Your task to perform on an android device: Open ESPN.com Image 0: 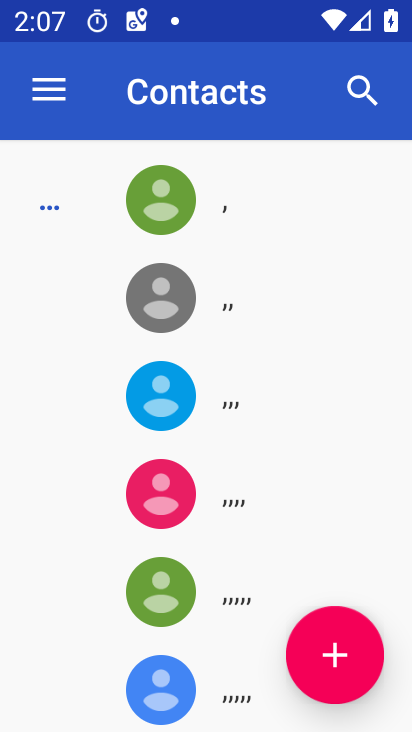
Step 0: press home button
Your task to perform on an android device: Open ESPN.com Image 1: 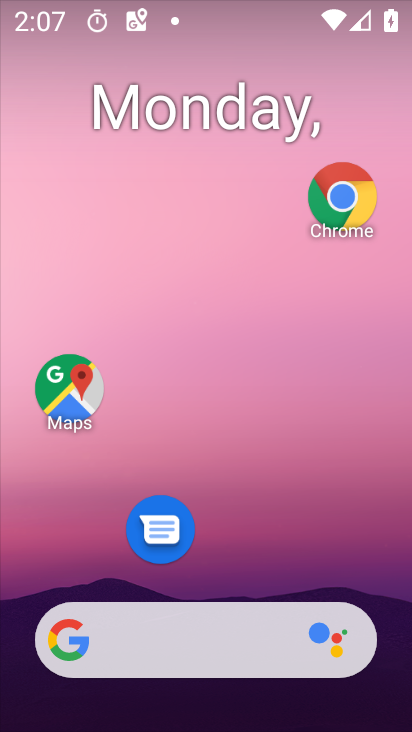
Step 1: click (357, 191)
Your task to perform on an android device: Open ESPN.com Image 2: 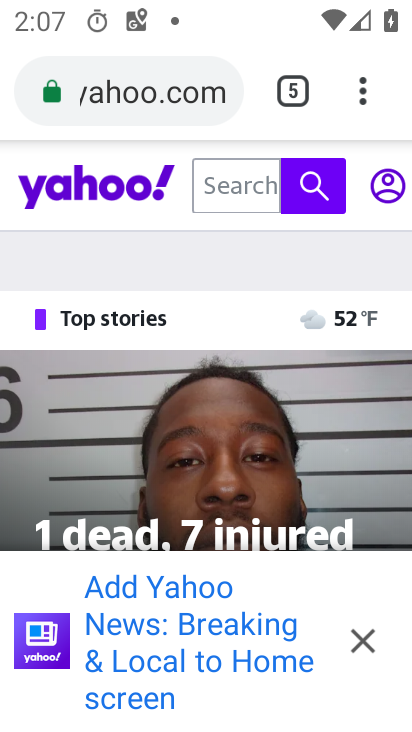
Step 2: click (296, 90)
Your task to perform on an android device: Open ESPN.com Image 3: 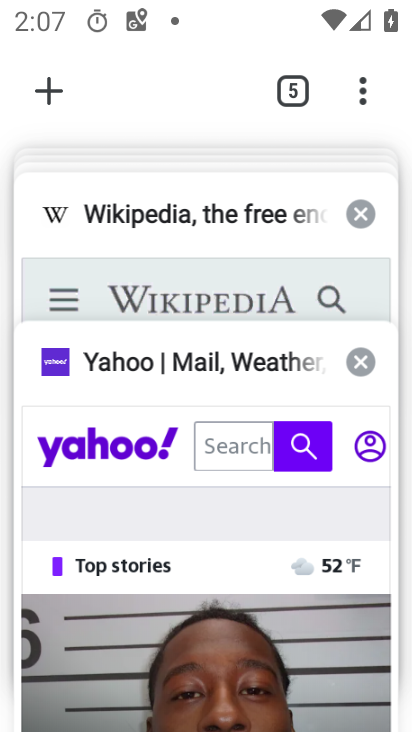
Step 3: click (61, 87)
Your task to perform on an android device: Open ESPN.com Image 4: 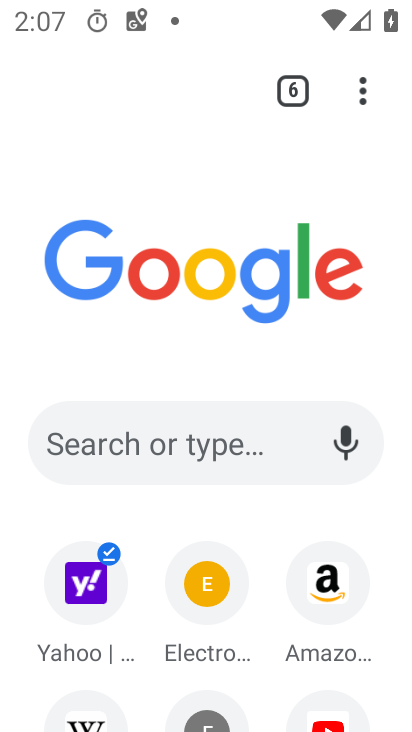
Step 4: drag from (230, 720) to (206, 320)
Your task to perform on an android device: Open ESPN.com Image 5: 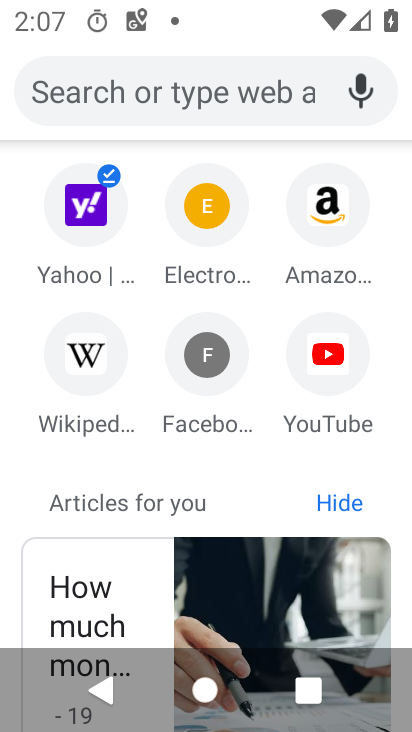
Step 5: click (174, 97)
Your task to perform on an android device: Open ESPN.com Image 6: 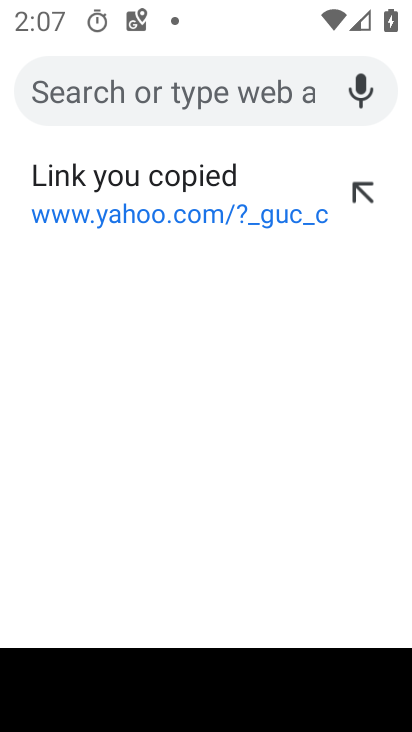
Step 6: type "espn"
Your task to perform on an android device: Open ESPN.com Image 7: 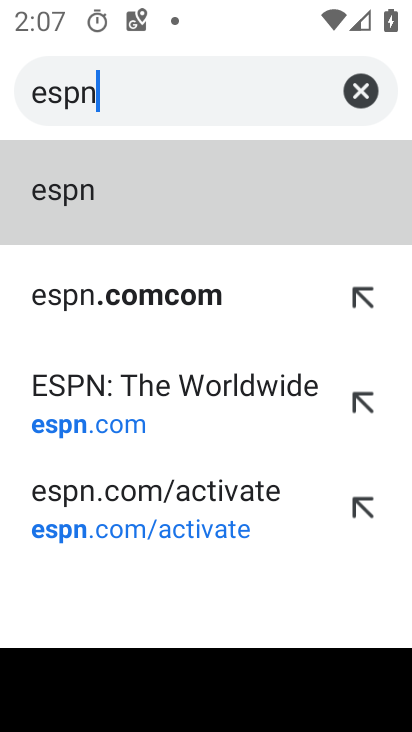
Step 7: click (87, 313)
Your task to perform on an android device: Open ESPN.com Image 8: 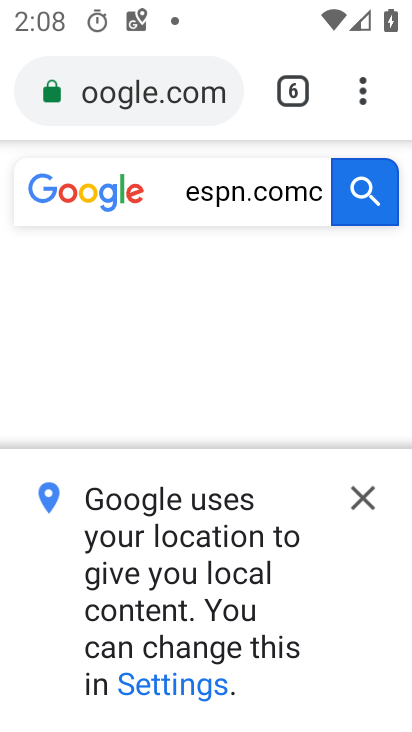
Step 8: click (365, 498)
Your task to perform on an android device: Open ESPN.com Image 9: 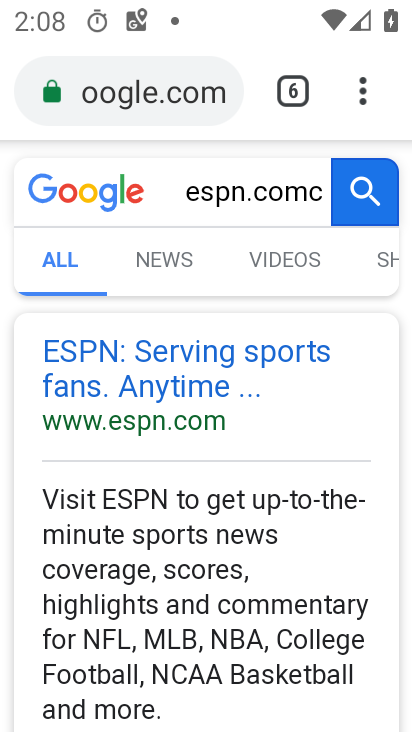
Step 9: click (173, 373)
Your task to perform on an android device: Open ESPN.com Image 10: 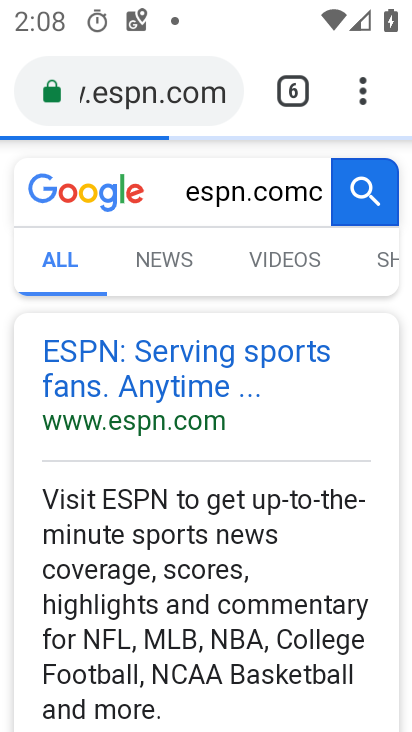
Step 10: task complete